Your task to perform on an android device: turn off sleep mode Image 0: 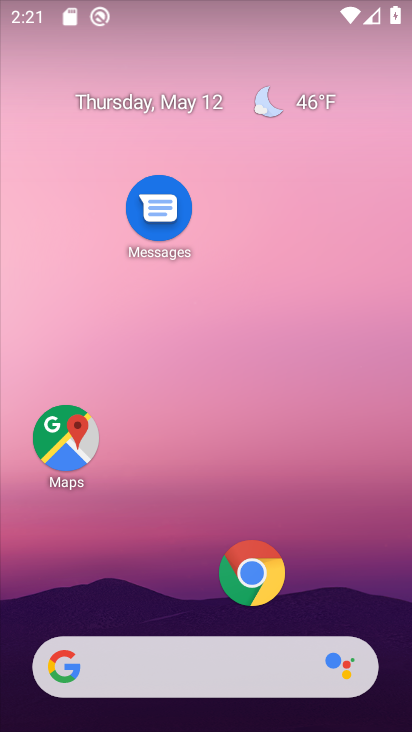
Step 0: drag from (221, 249) to (279, 29)
Your task to perform on an android device: turn off sleep mode Image 1: 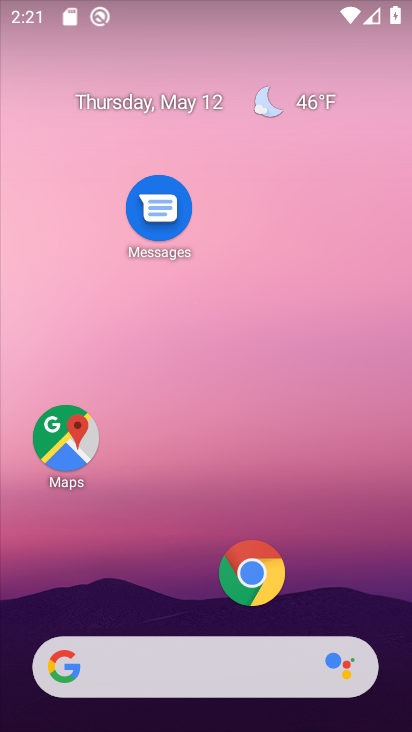
Step 1: drag from (163, 621) to (219, 150)
Your task to perform on an android device: turn off sleep mode Image 2: 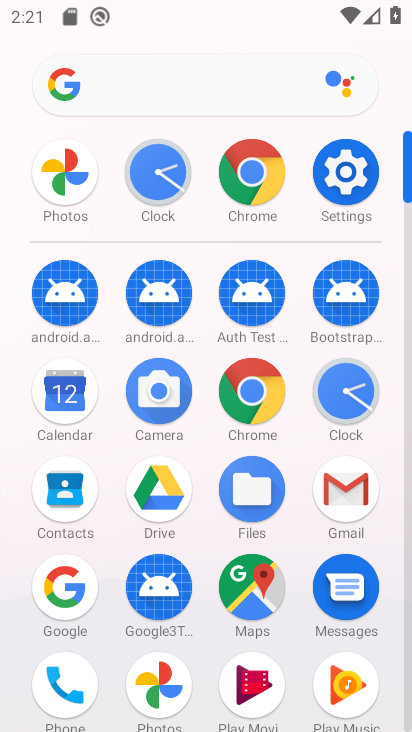
Step 2: click (356, 182)
Your task to perform on an android device: turn off sleep mode Image 3: 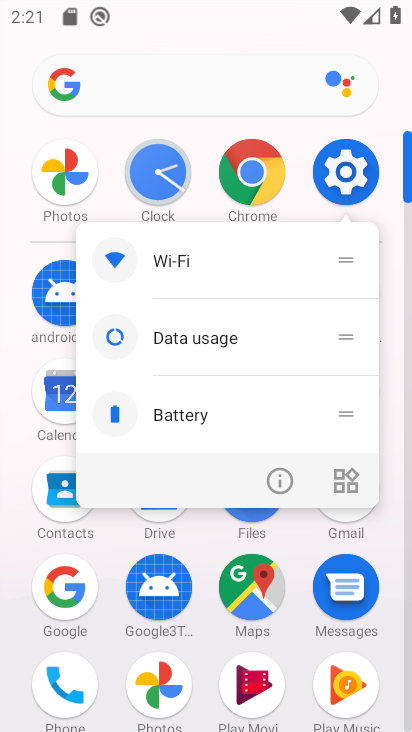
Step 3: click (273, 472)
Your task to perform on an android device: turn off sleep mode Image 4: 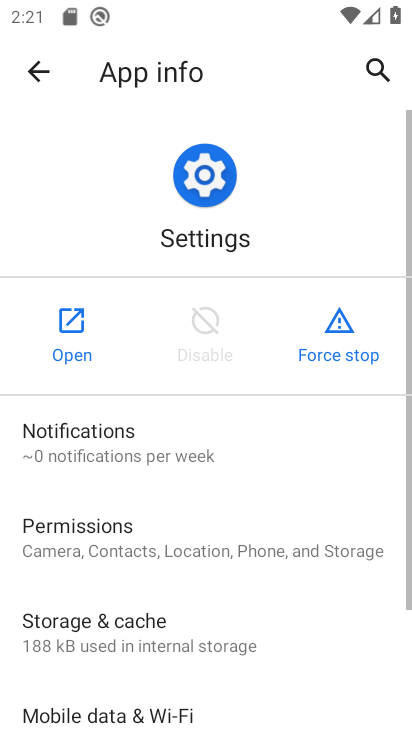
Step 4: click (81, 324)
Your task to perform on an android device: turn off sleep mode Image 5: 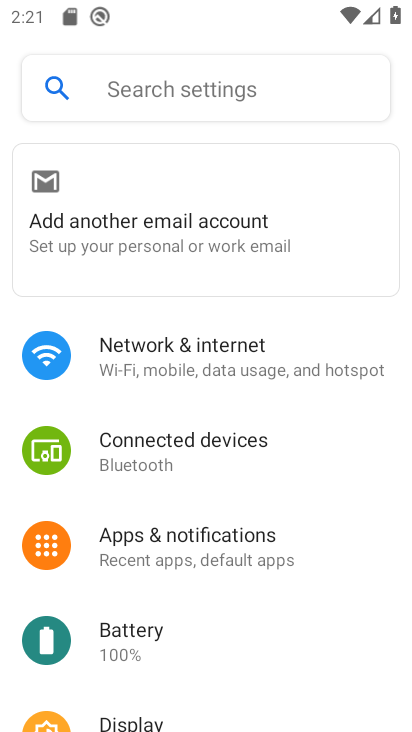
Step 5: click (218, 91)
Your task to perform on an android device: turn off sleep mode Image 6: 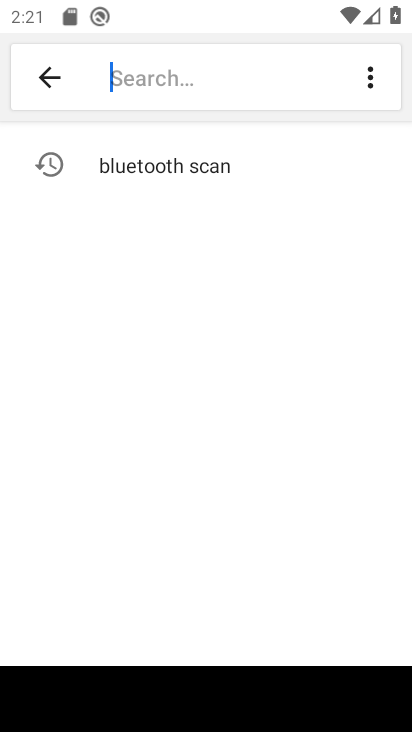
Step 6: click (52, 75)
Your task to perform on an android device: turn off sleep mode Image 7: 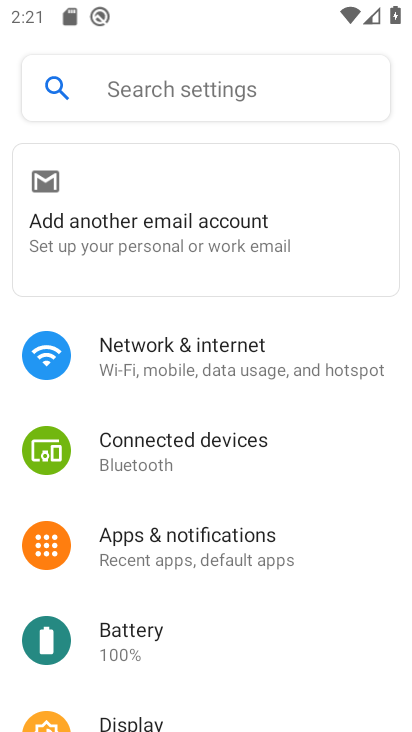
Step 7: click (149, 719)
Your task to perform on an android device: turn off sleep mode Image 8: 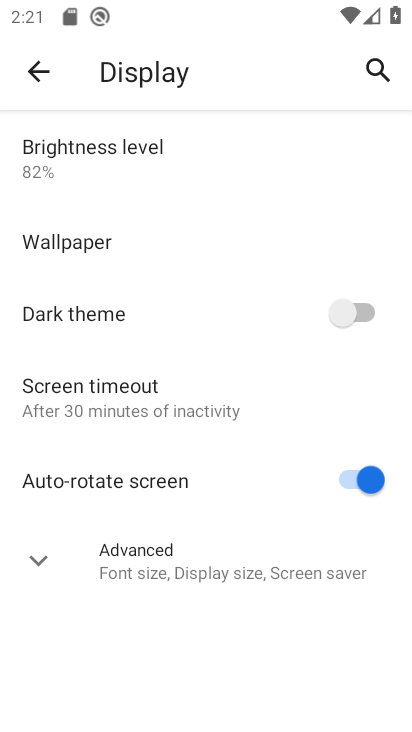
Step 8: drag from (189, 680) to (250, 310)
Your task to perform on an android device: turn off sleep mode Image 9: 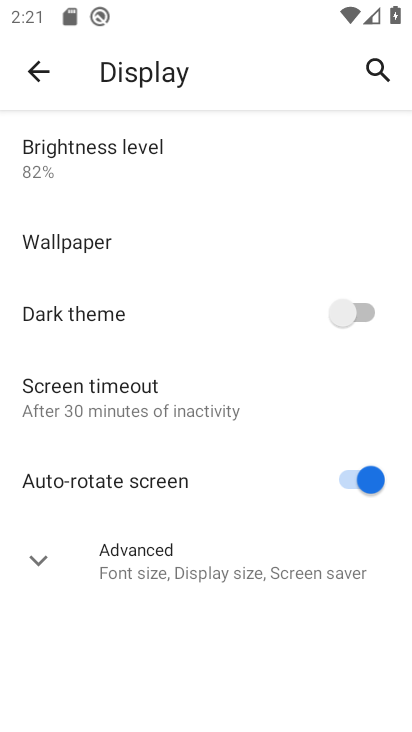
Step 9: click (169, 410)
Your task to perform on an android device: turn off sleep mode Image 10: 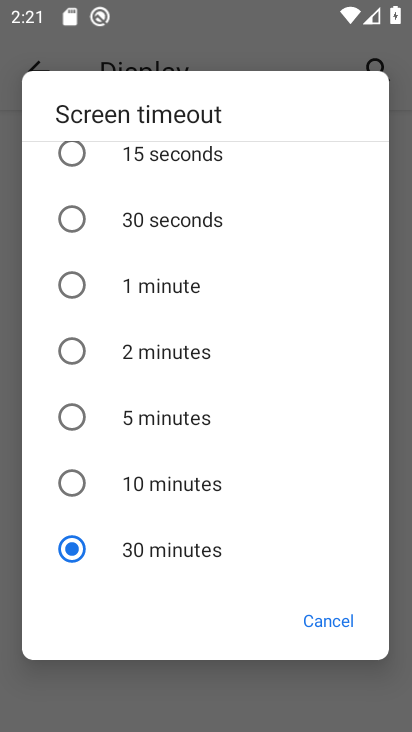
Step 10: task complete